Your task to perform on an android device: check android version Image 0: 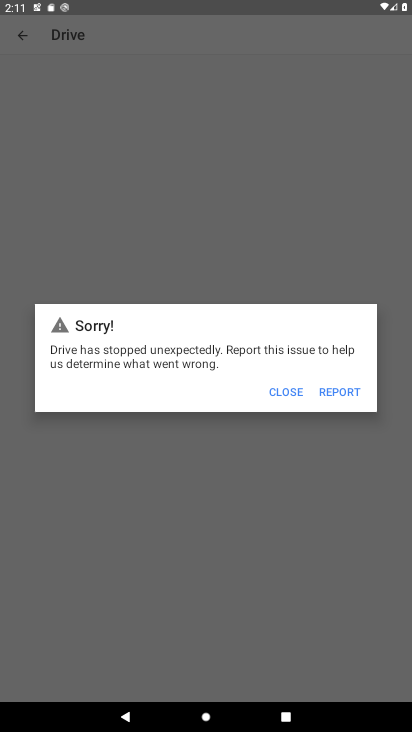
Step 0: press home button
Your task to perform on an android device: check android version Image 1: 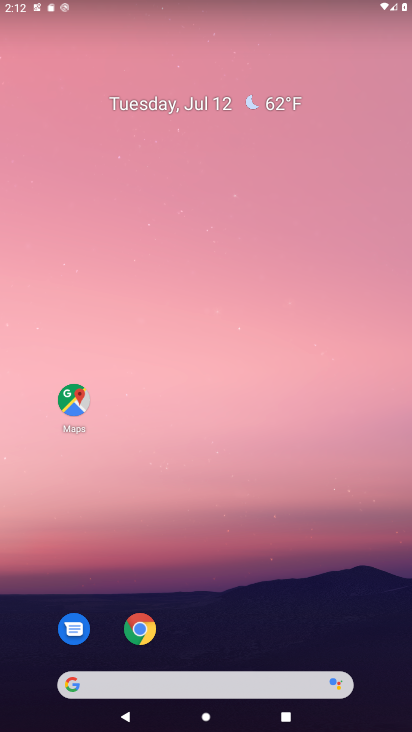
Step 1: drag from (222, 654) to (250, 98)
Your task to perform on an android device: check android version Image 2: 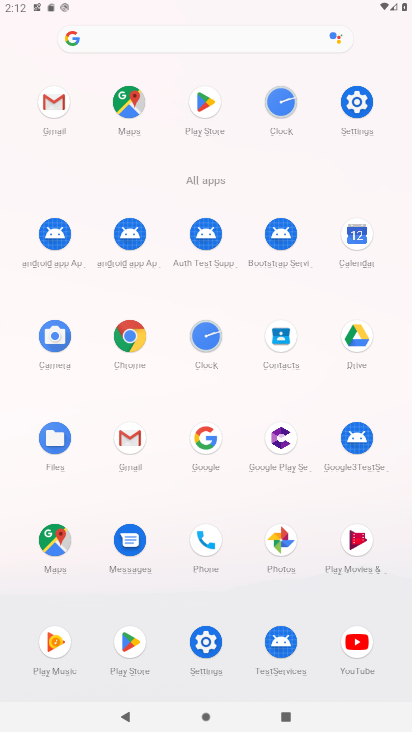
Step 2: click (356, 104)
Your task to perform on an android device: check android version Image 3: 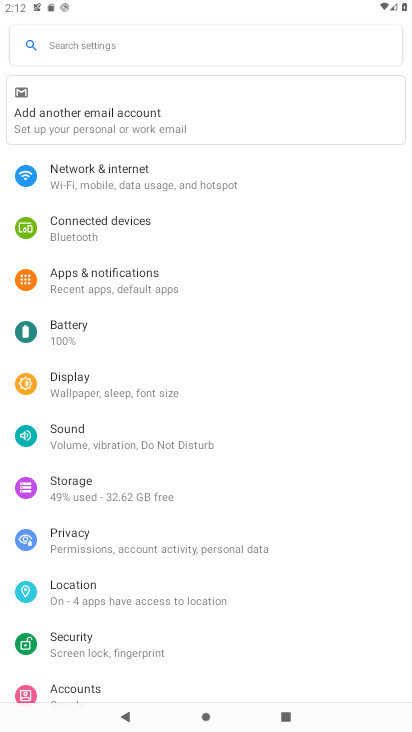
Step 3: drag from (201, 627) to (235, 247)
Your task to perform on an android device: check android version Image 4: 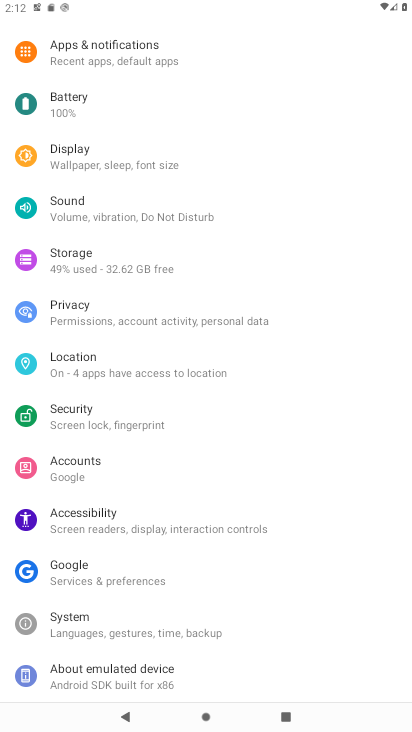
Step 4: click (163, 676)
Your task to perform on an android device: check android version Image 5: 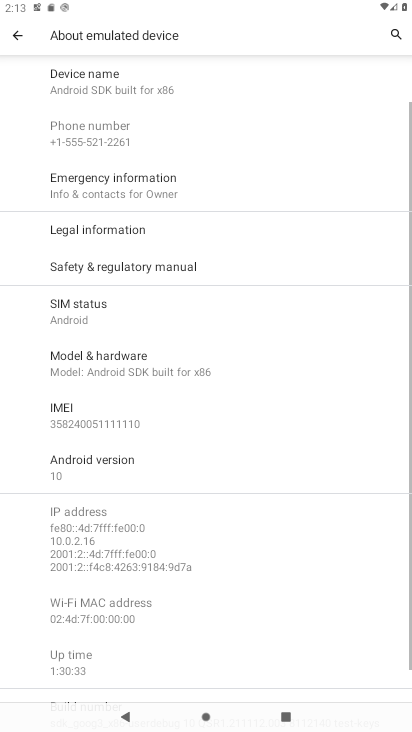
Step 5: click (109, 452)
Your task to perform on an android device: check android version Image 6: 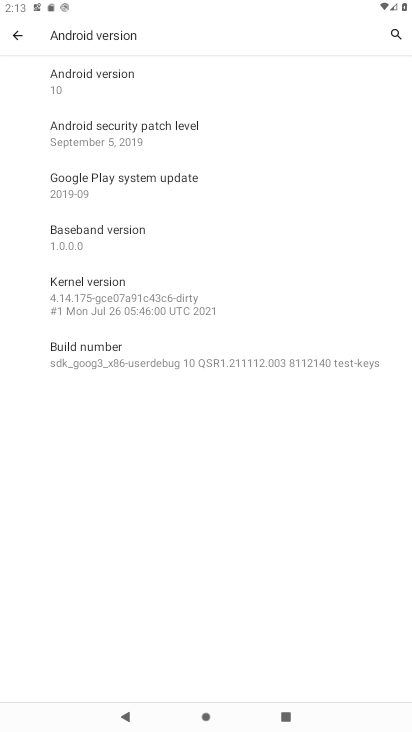
Step 6: task complete